Your task to perform on an android device: open sync settings in chrome Image 0: 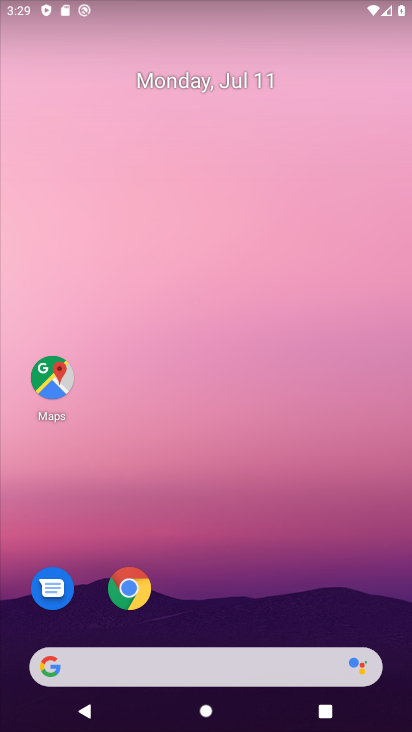
Step 0: drag from (365, 583) to (369, 204)
Your task to perform on an android device: open sync settings in chrome Image 1: 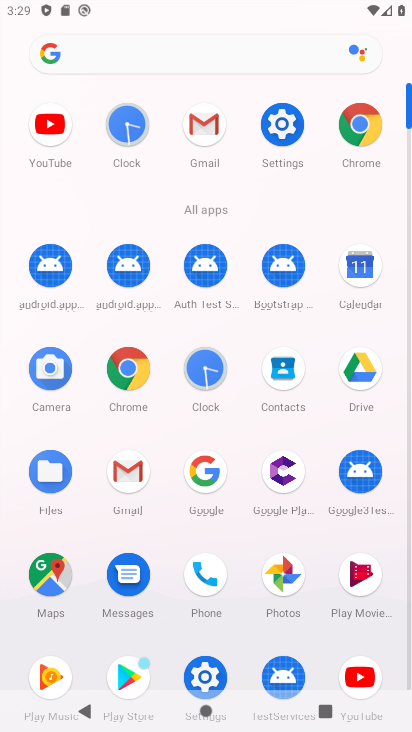
Step 1: click (133, 374)
Your task to perform on an android device: open sync settings in chrome Image 2: 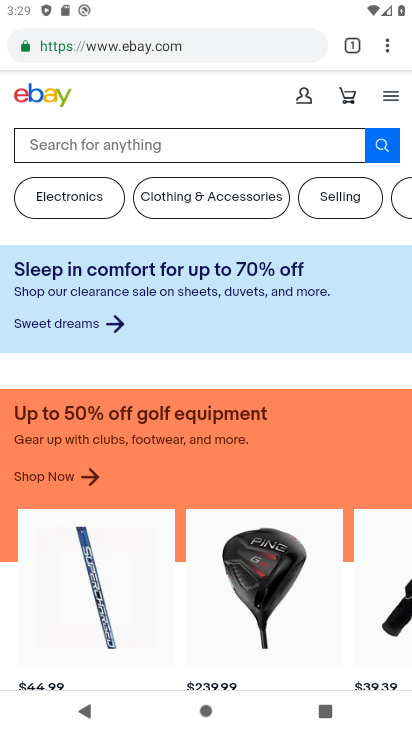
Step 2: click (386, 44)
Your task to perform on an android device: open sync settings in chrome Image 3: 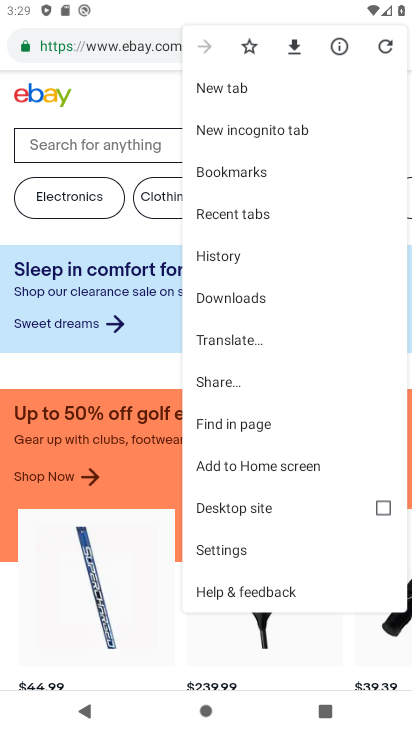
Step 3: click (262, 547)
Your task to perform on an android device: open sync settings in chrome Image 4: 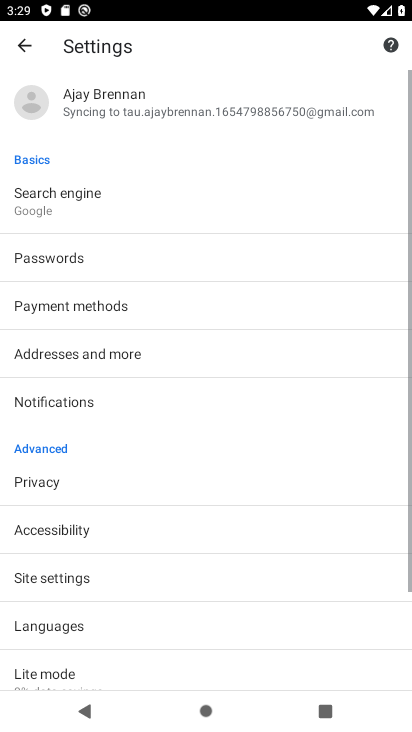
Step 4: drag from (323, 444) to (327, 351)
Your task to perform on an android device: open sync settings in chrome Image 5: 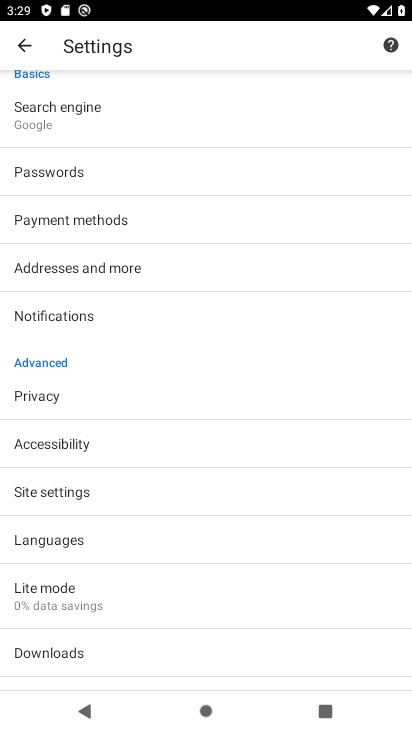
Step 5: drag from (319, 460) to (319, 356)
Your task to perform on an android device: open sync settings in chrome Image 6: 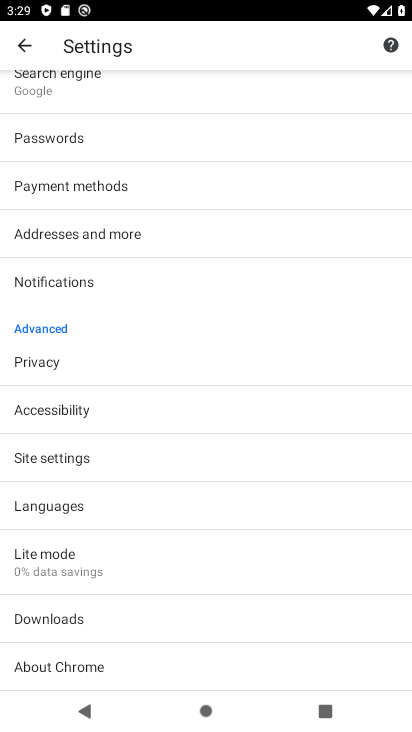
Step 6: click (244, 465)
Your task to perform on an android device: open sync settings in chrome Image 7: 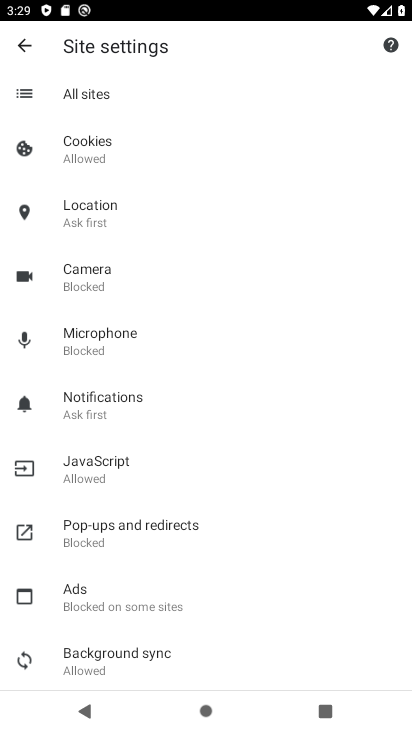
Step 7: drag from (287, 496) to (314, 378)
Your task to perform on an android device: open sync settings in chrome Image 8: 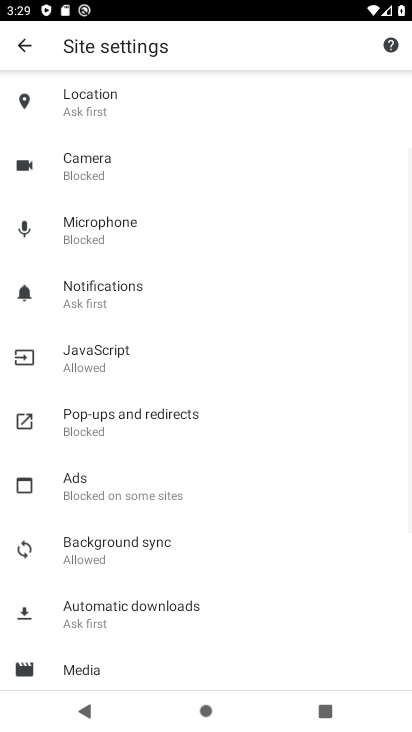
Step 8: drag from (304, 482) to (322, 369)
Your task to perform on an android device: open sync settings in chrome Image 9: 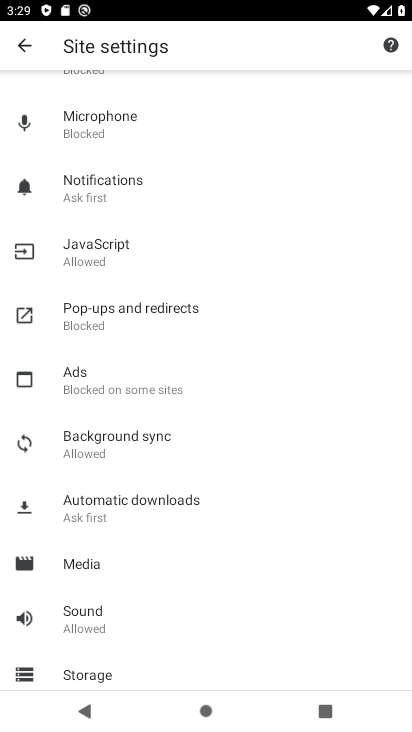
Step 9: drag from (306, 464) to (308, 317)
Your task to perform on an android device: open sync settings in chrome Image 10: 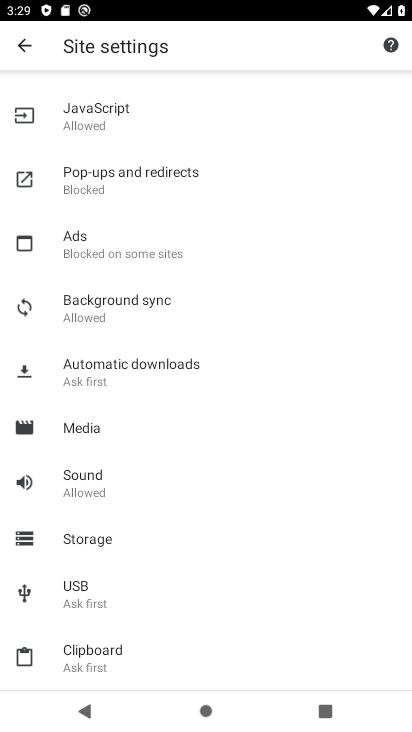
Step 10: drag from (297, 484) to (321, 361)
Your task to perform on an android device: open sync settings in chrome Image 11: 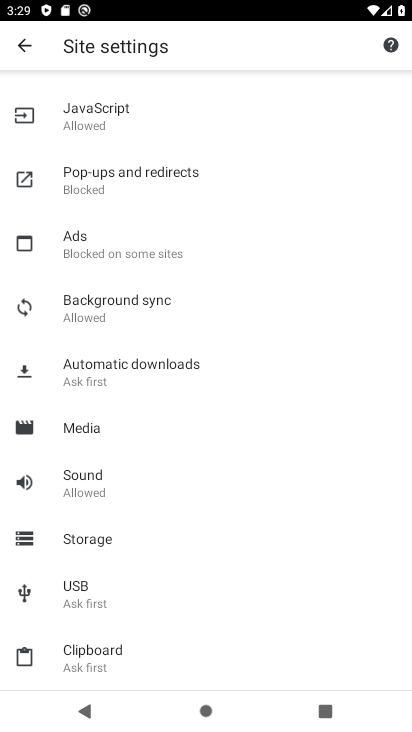
Step 11: click (169, 305)
Your task to perform on an android device: open sync settings in chrome Image 12: 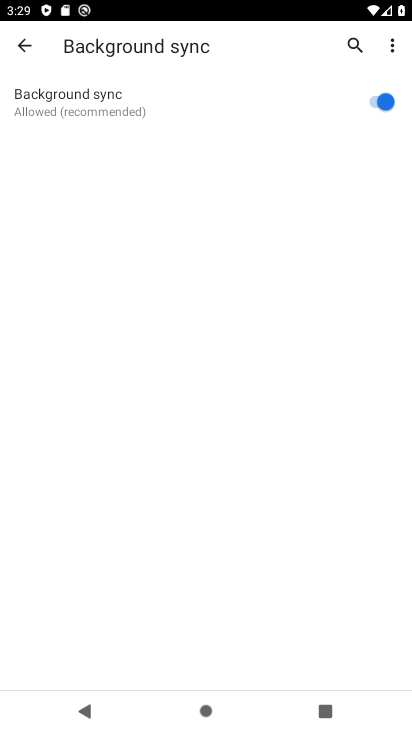
Step 12: task complete